Your task to perform on an android device: open chrome and create a bookmark for the current page Image 0: 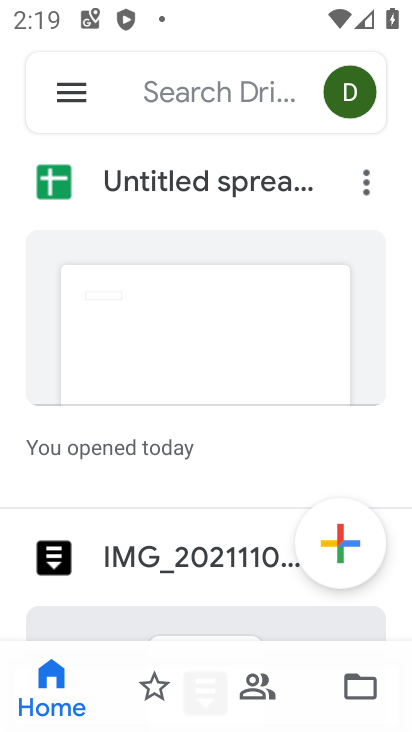
Step 0: press home button
Your task to perform on an android device: open chrome and create a bookmark for the current page Image 1: 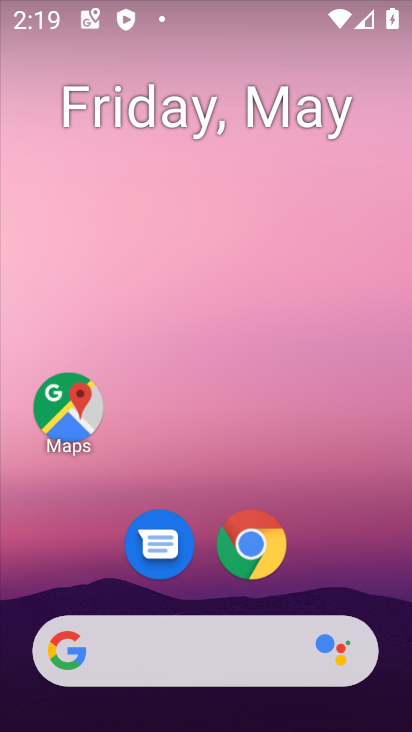
Step 1: click (235, 557)
Your task to perform on an android device: open chrome and create a bookmark for the current page Image 2: 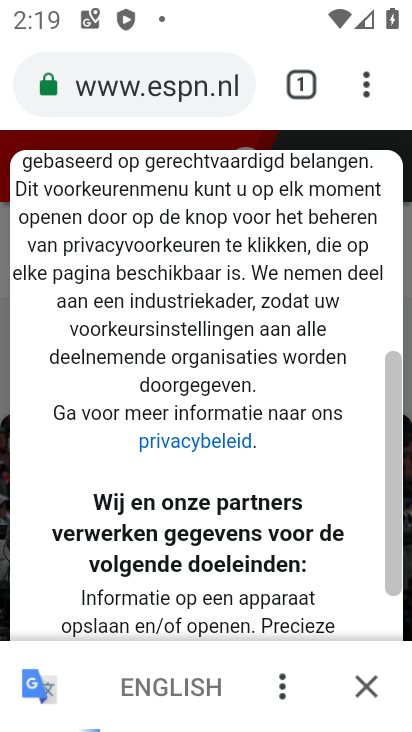
Step 2: task complete